Your task to perform on an android device: change the clock style Image 0: 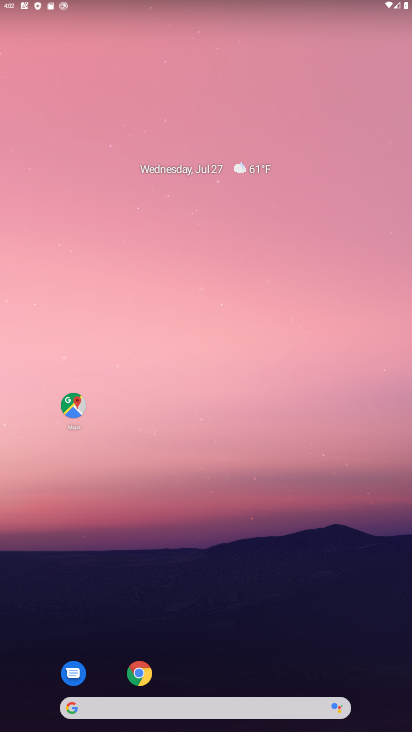
Step 0: task complete